Your task to perform on an android device: Go to Android settings Image 0: 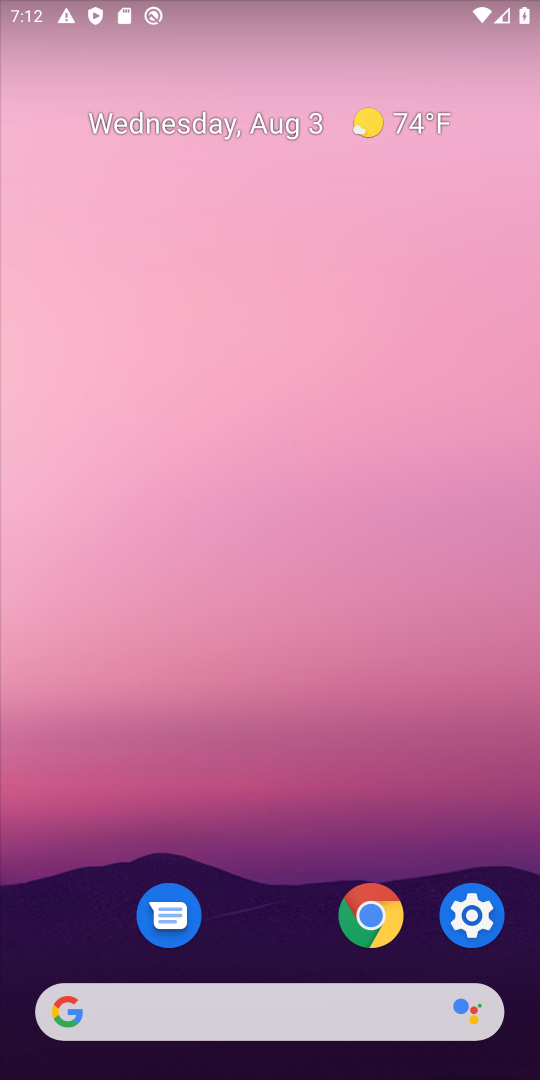
Step 0: press home button
Your task to perform on an android device: Go to Android settings Image 1: 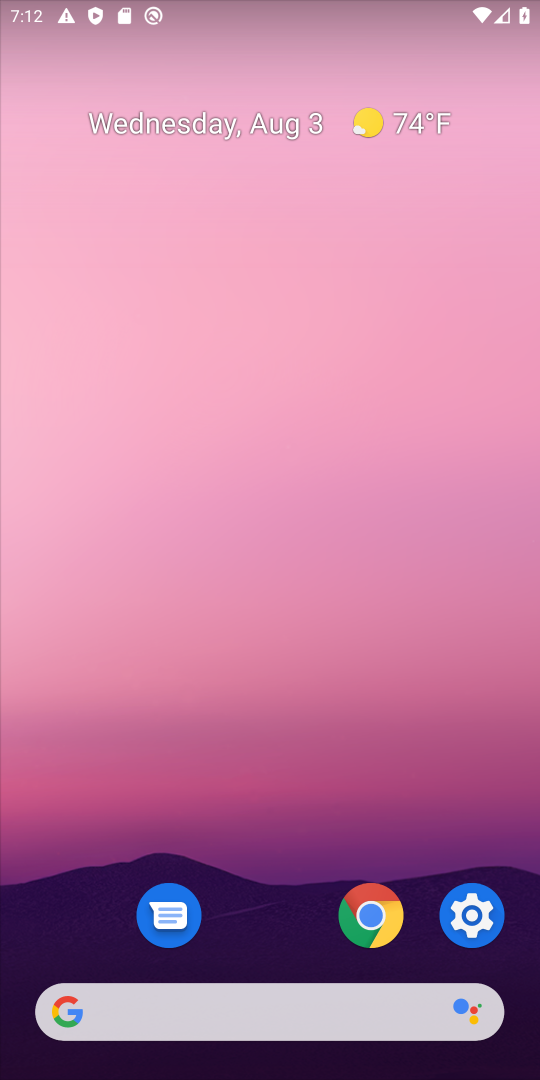
Step 1: drag from (321, 990) to (294, 343)
Your task to perform on an android device: Go to Android settings Image 2: 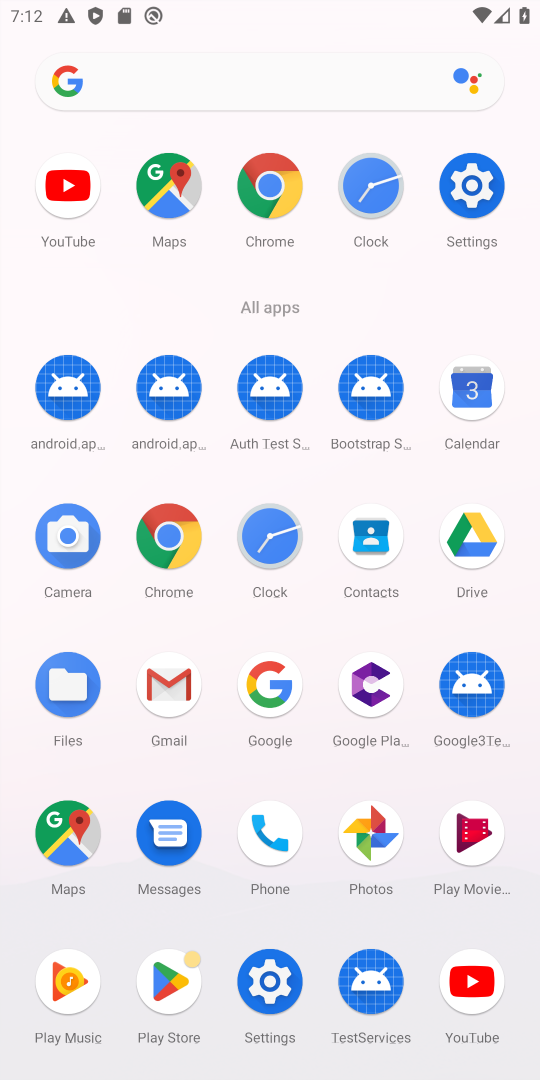
Step 2: click (466, 184)
Your task to perform on an android device: Go to Android settings Image 3: 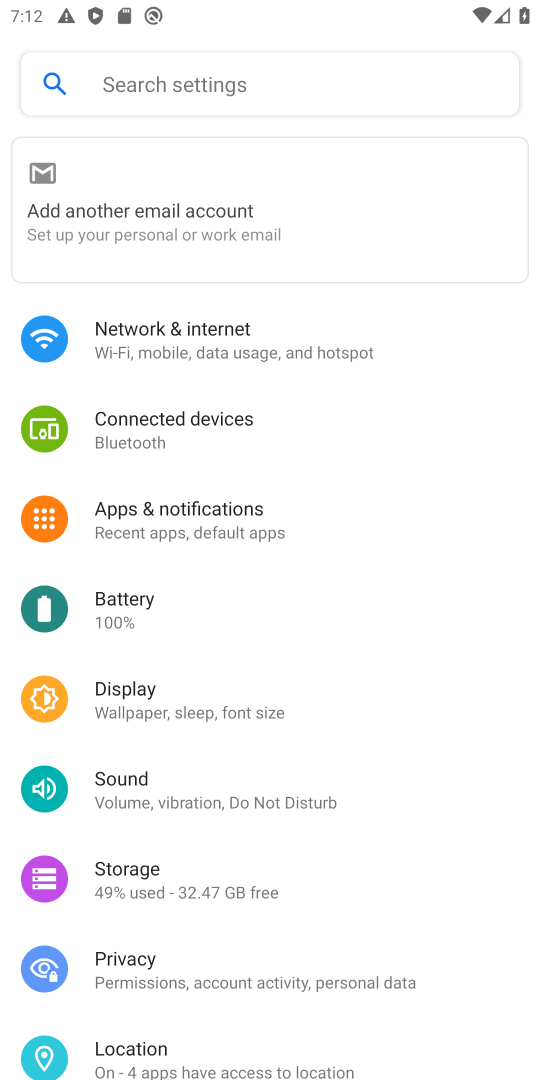
Step 3: click (162, 79)
Your task to perform on an android device: Go to Android settings Image 4: 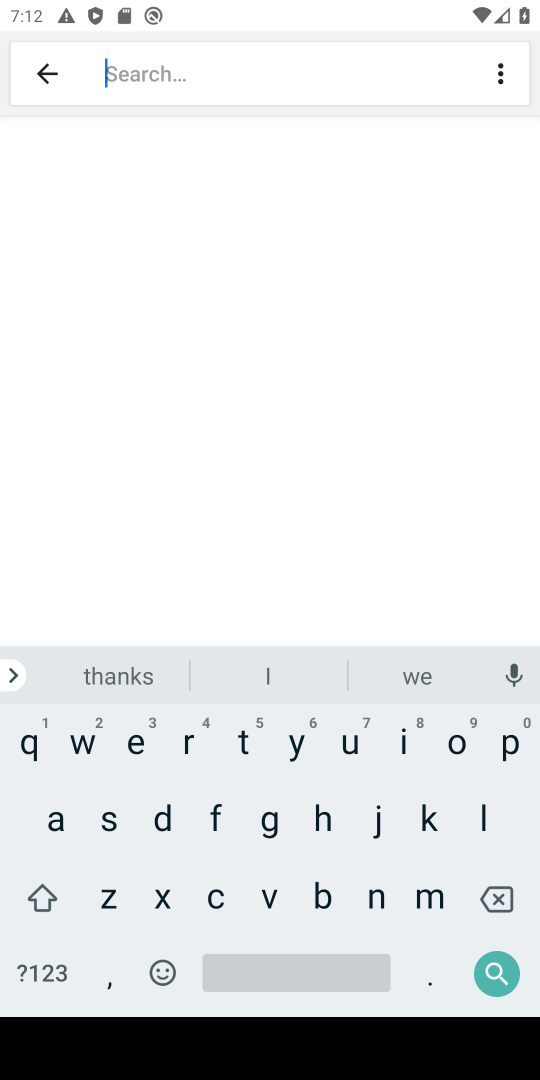
Step 4: click (56, 812)
Your task to perform on an android device: Go to Android settings Image 5: 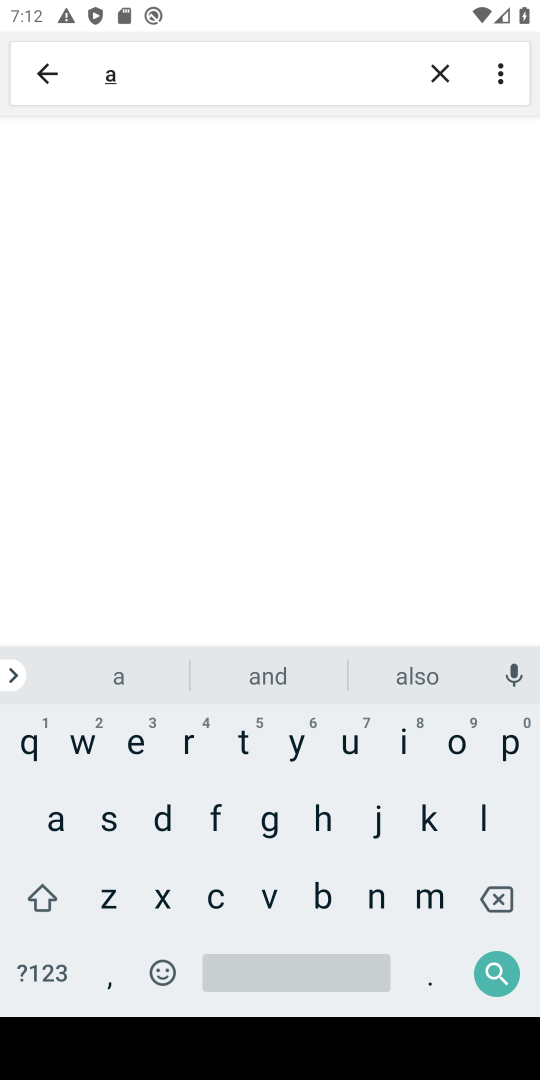
Step 5: click (380, 901)
Your task to perform on an android device: Go to Android settings Image 6: 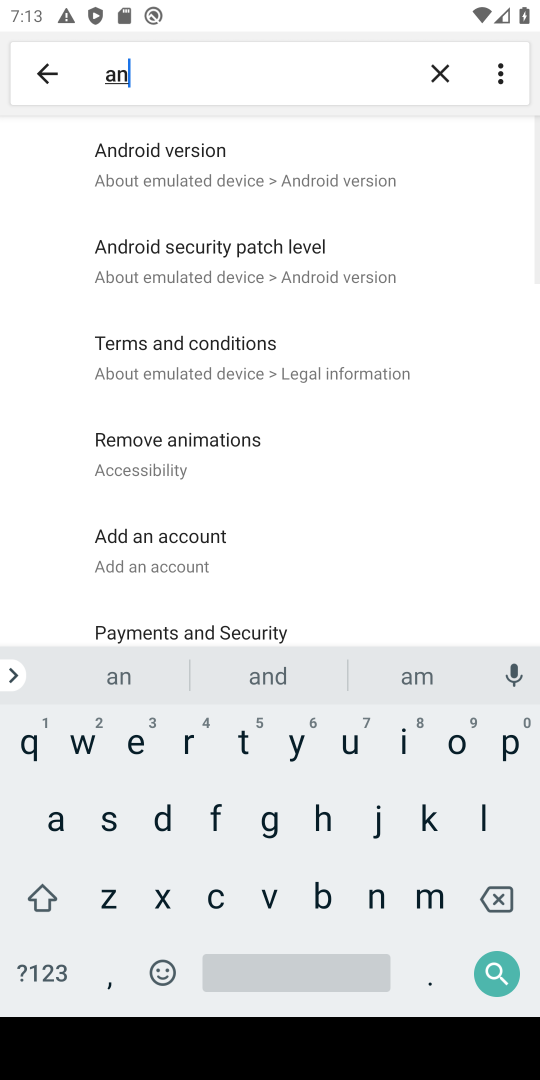
Step 6: click (171, 821)
Your task to perform on an android device: Go to Android settings Image 7: 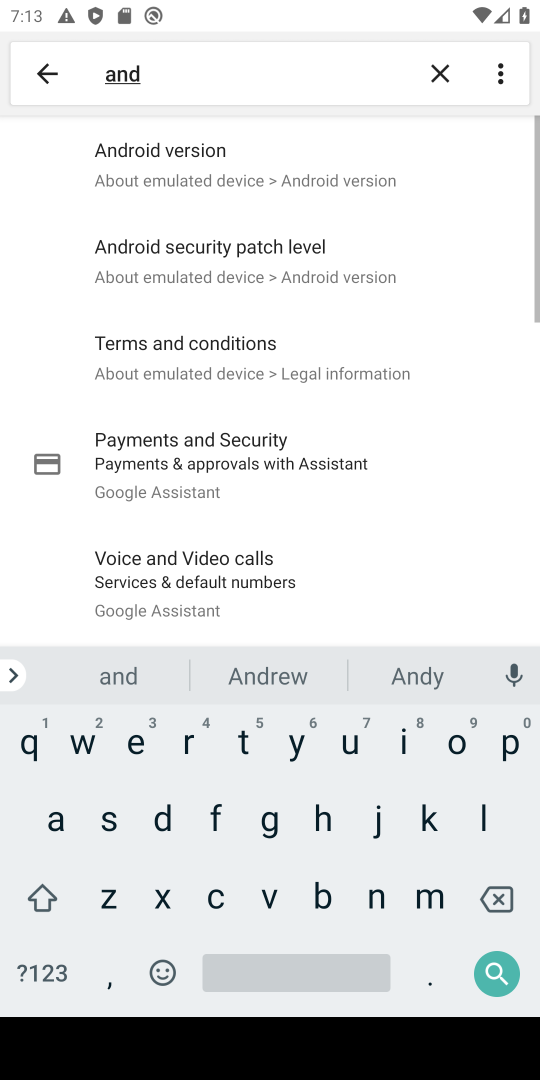
Step 7: click (179, 152)
Your task to perform on an android device: Go to Android settings Image 8: 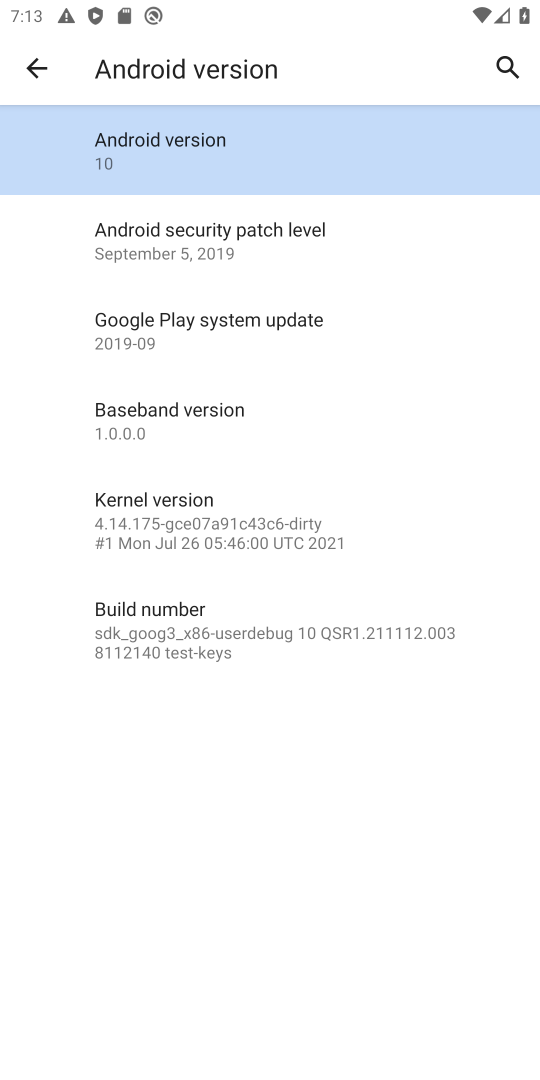
Step 8: click (179, 177)
Your task to perform on an android device: Go to Android settings Image 9: 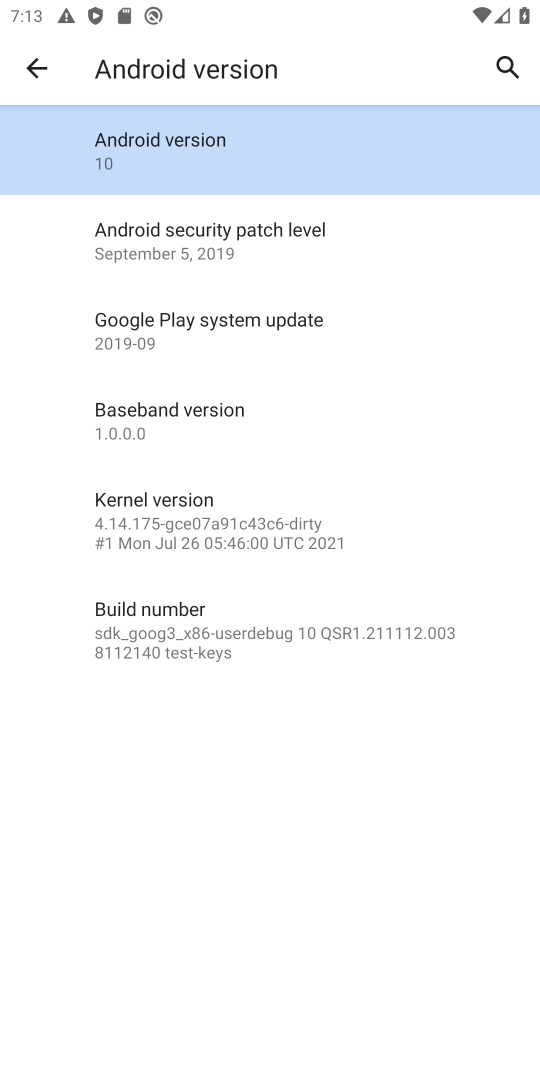
Step 9: task complete